Your task to perform on an android device: install app "Upside-Cash back on gas & food" Image 0: 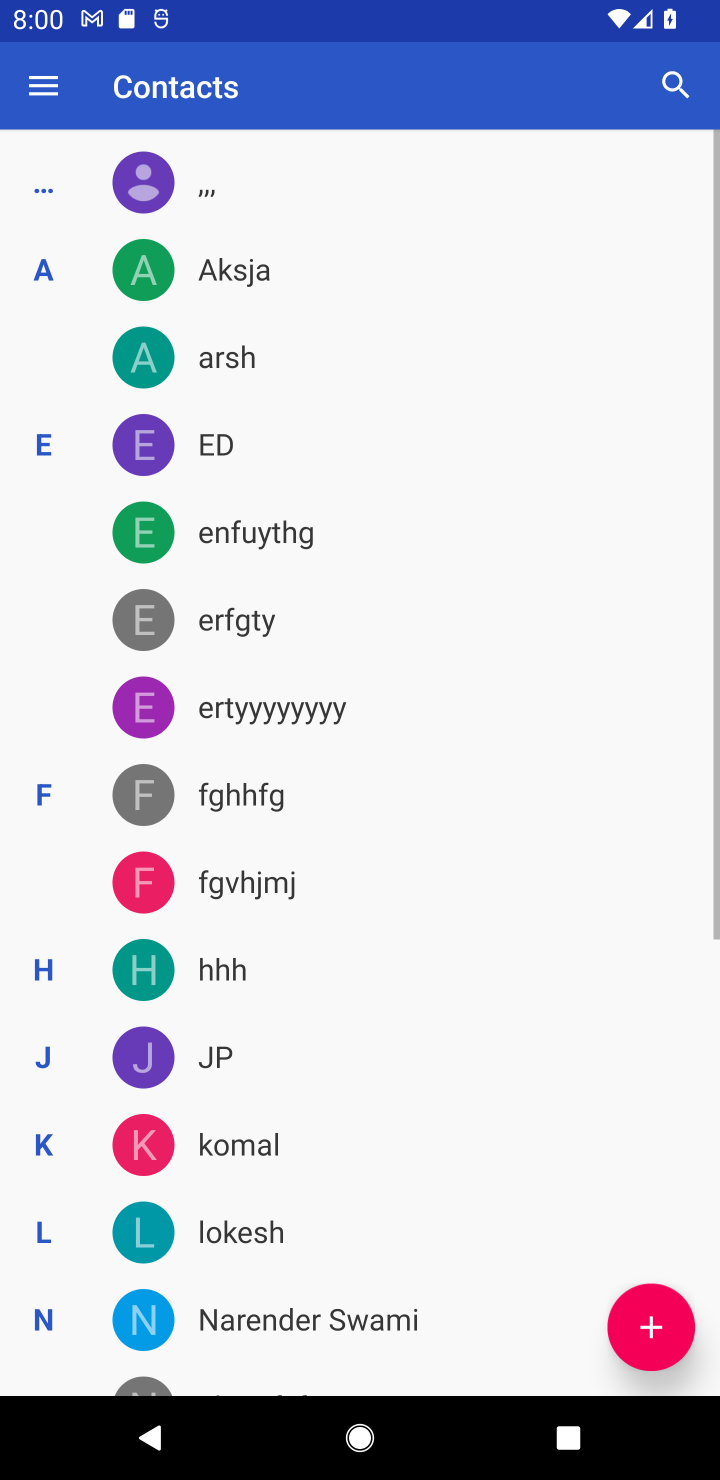
Step 0: press home button
Your task to perform on an android device: install app "Upside-Cash back on gas & food" Image 1: 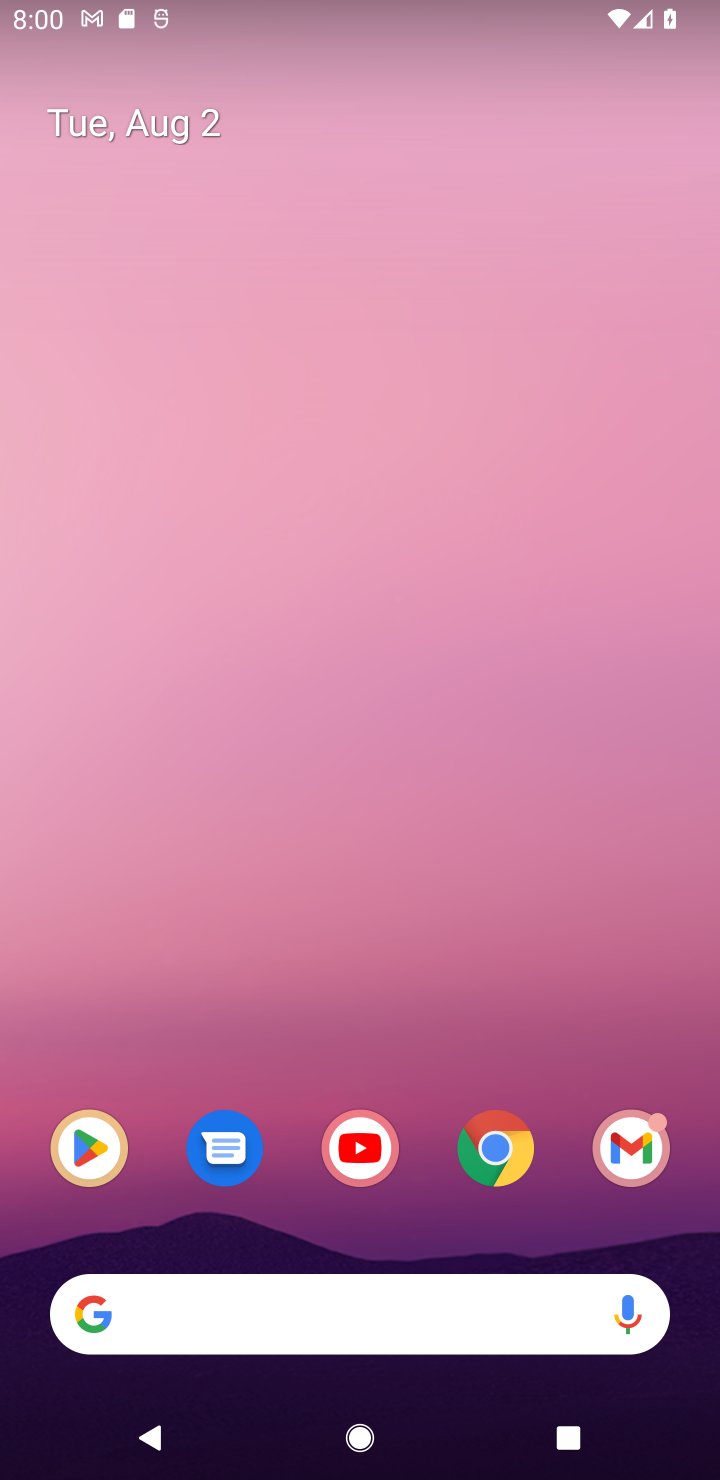
Step 1: drag from (572, 1110) to (324, 162)
Your task to perform on an android device: install app "Upside-Cash back on gas & food" Image 2: 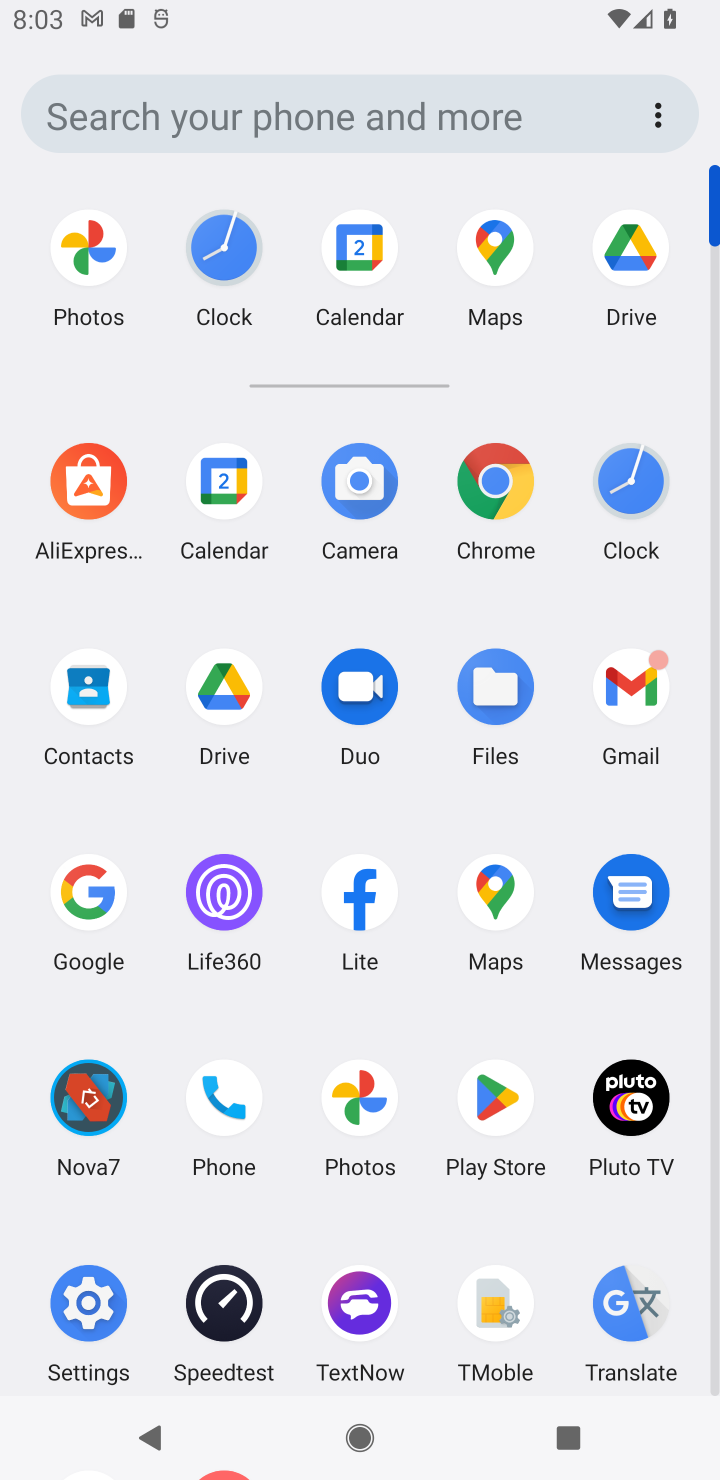
Step 2: click (497, 1088)
Your task to perform on an android device: install app "Upside-Cash back on gas & food" Image 3: 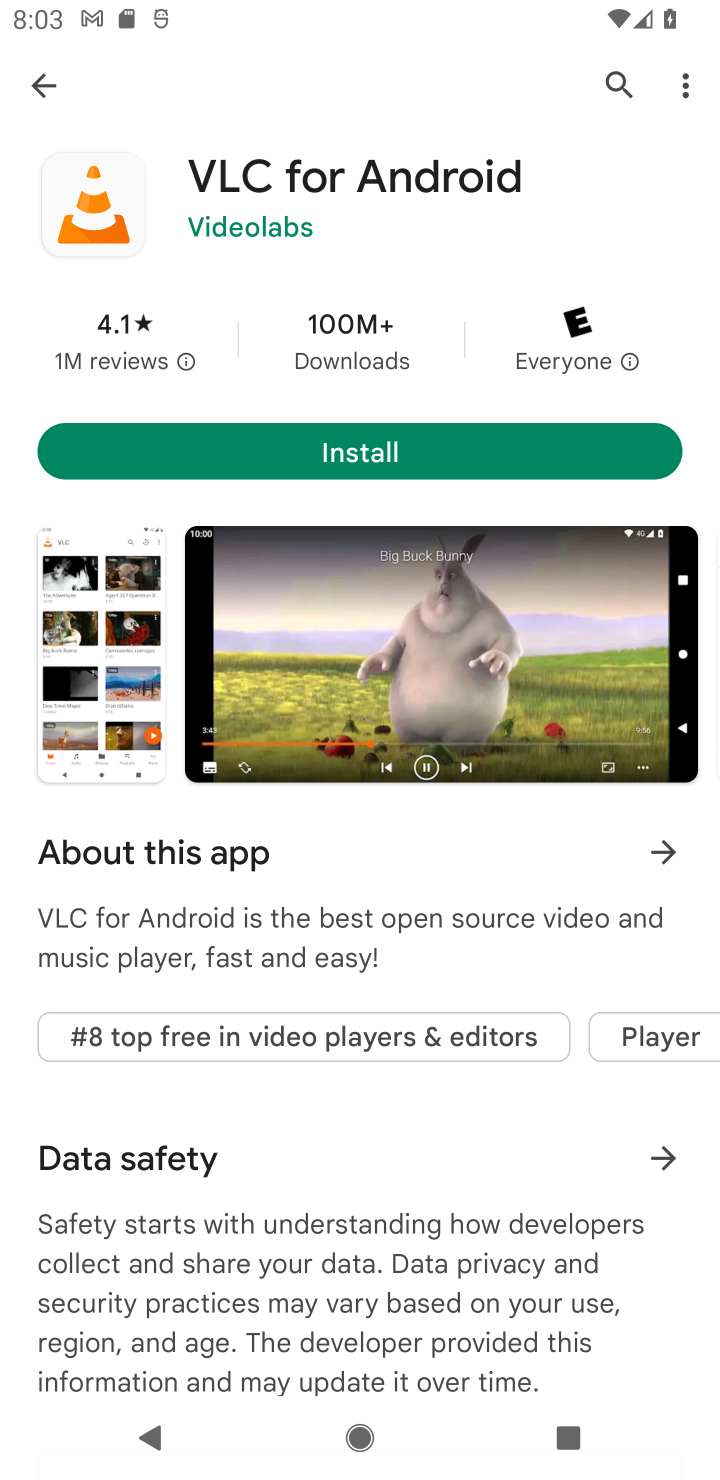
Step 3: press back button
Your task to perform on an android device: install app "Upside-Cash back on gas & food" Image 4: 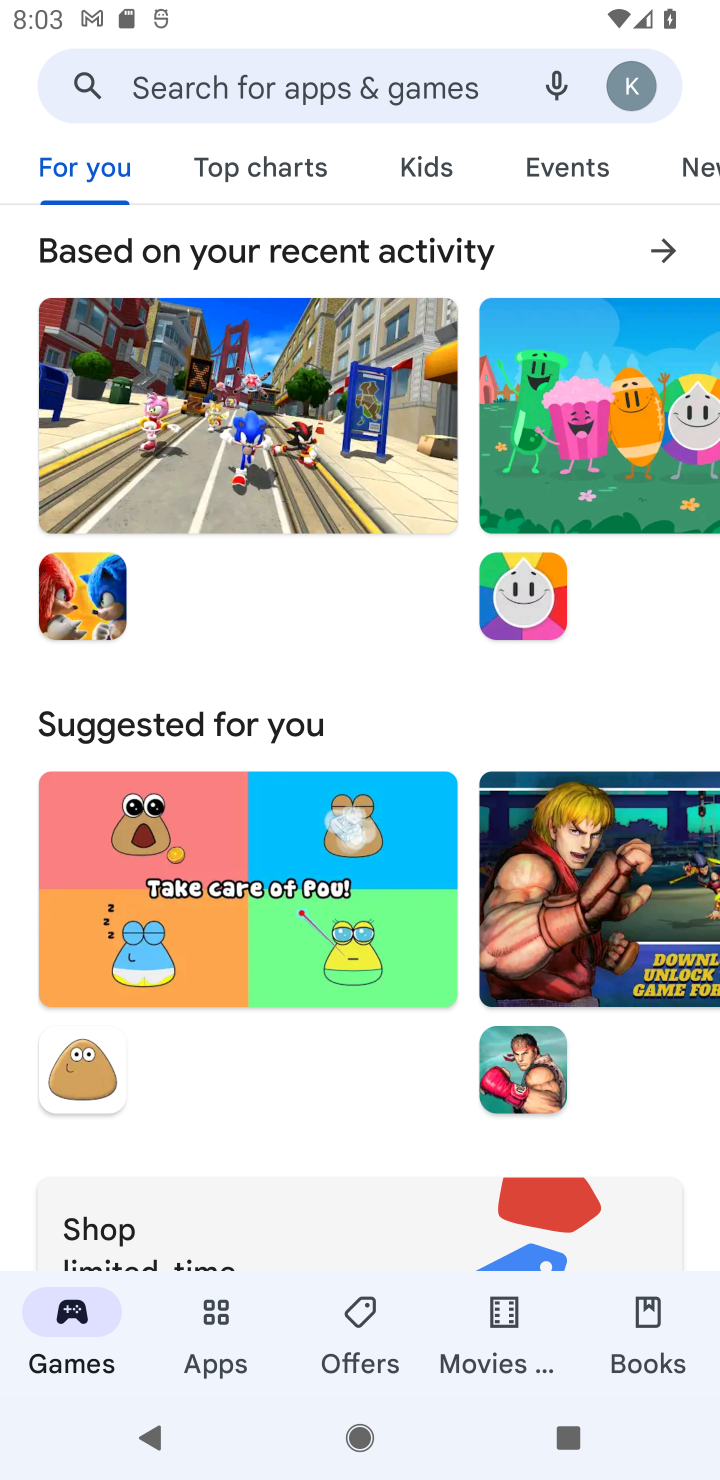
Step 4: click (290, 94)
Your task to perform on an android device: install app "Upside-Cash back on gas & food" Image 5: 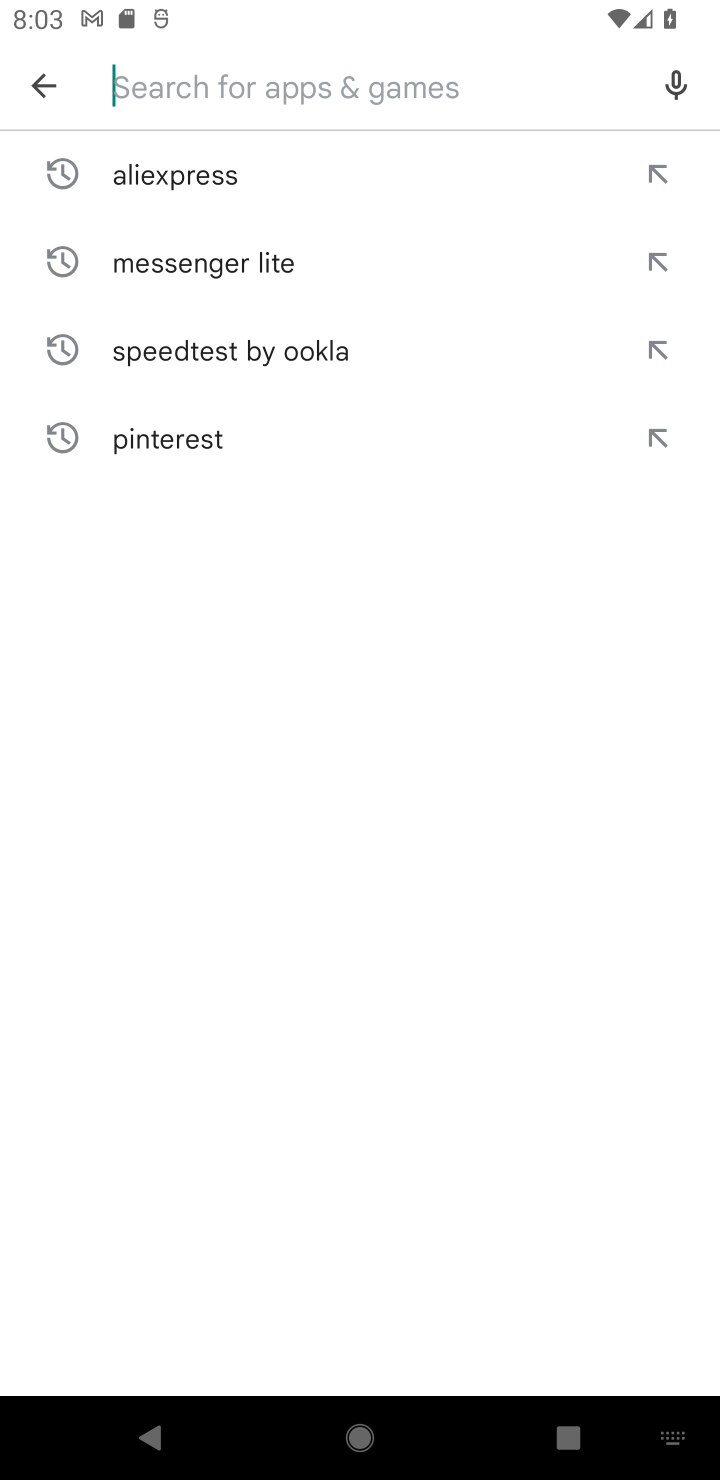
Step 5: type "Upside-Cash back on gas & food"
Your task to perform on an android device: install app "Upside-Cash back on gas & food" Image 6: 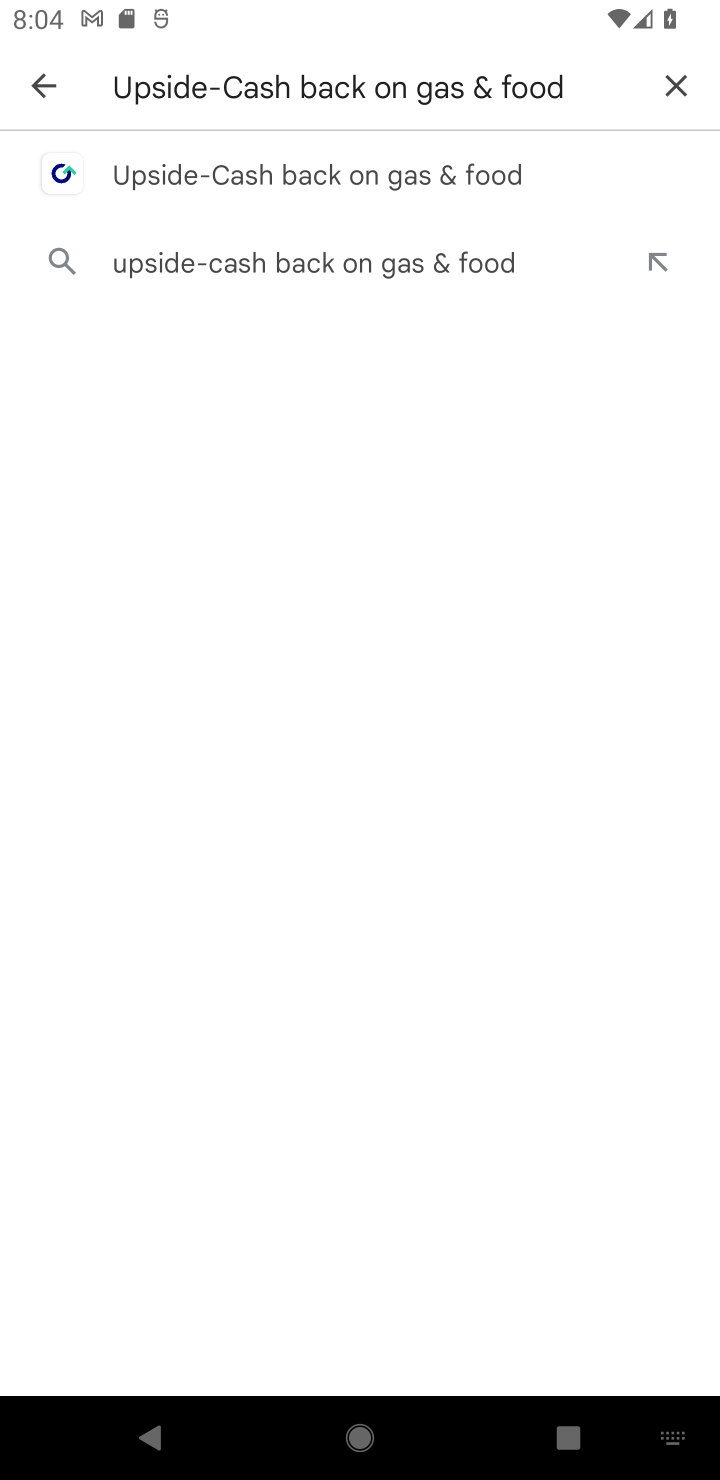
Step 6: click (292, 193)
Your task to perform on an android device: install app "Upside-Cash back on gas & food" Image 7: 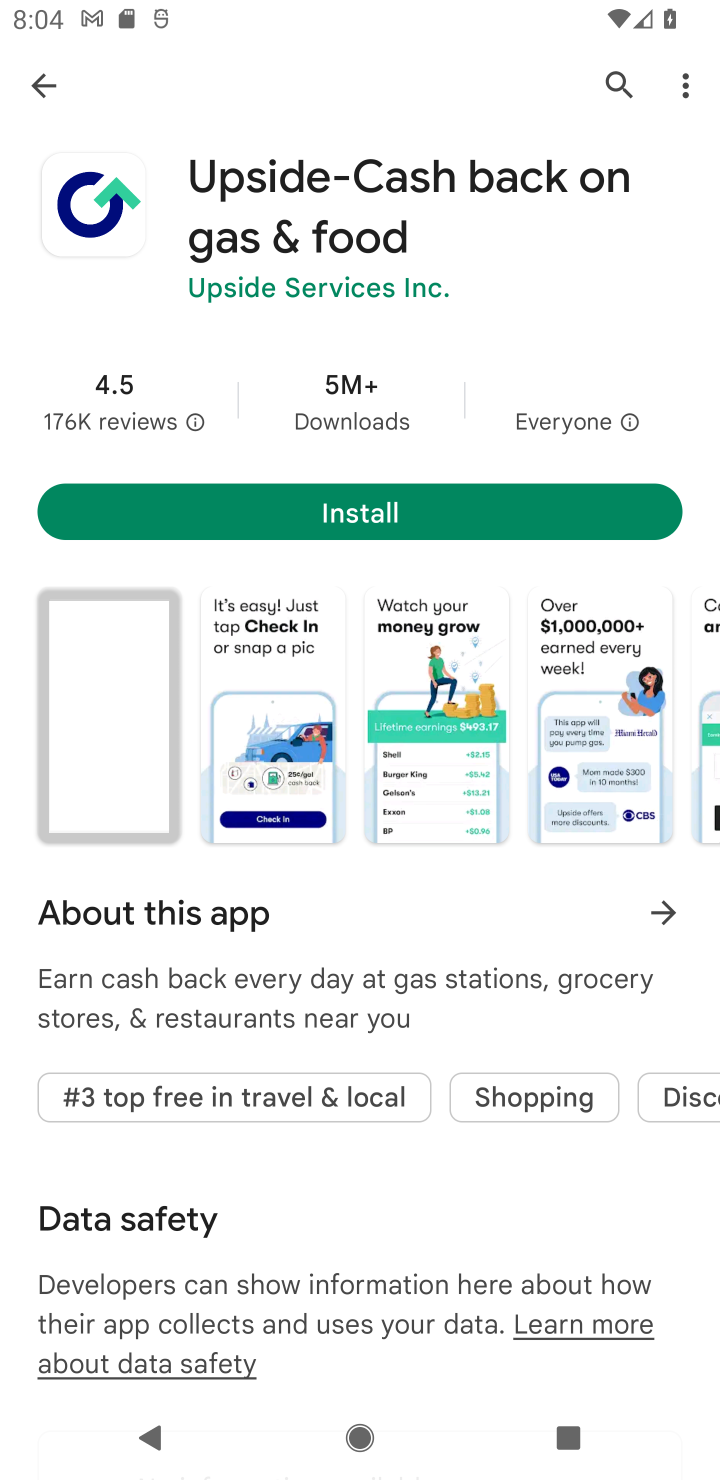
Step 7: click (290, 527)
Your task to perform on an android device: install app "Upside-Cash back on gas & food" Image 8: 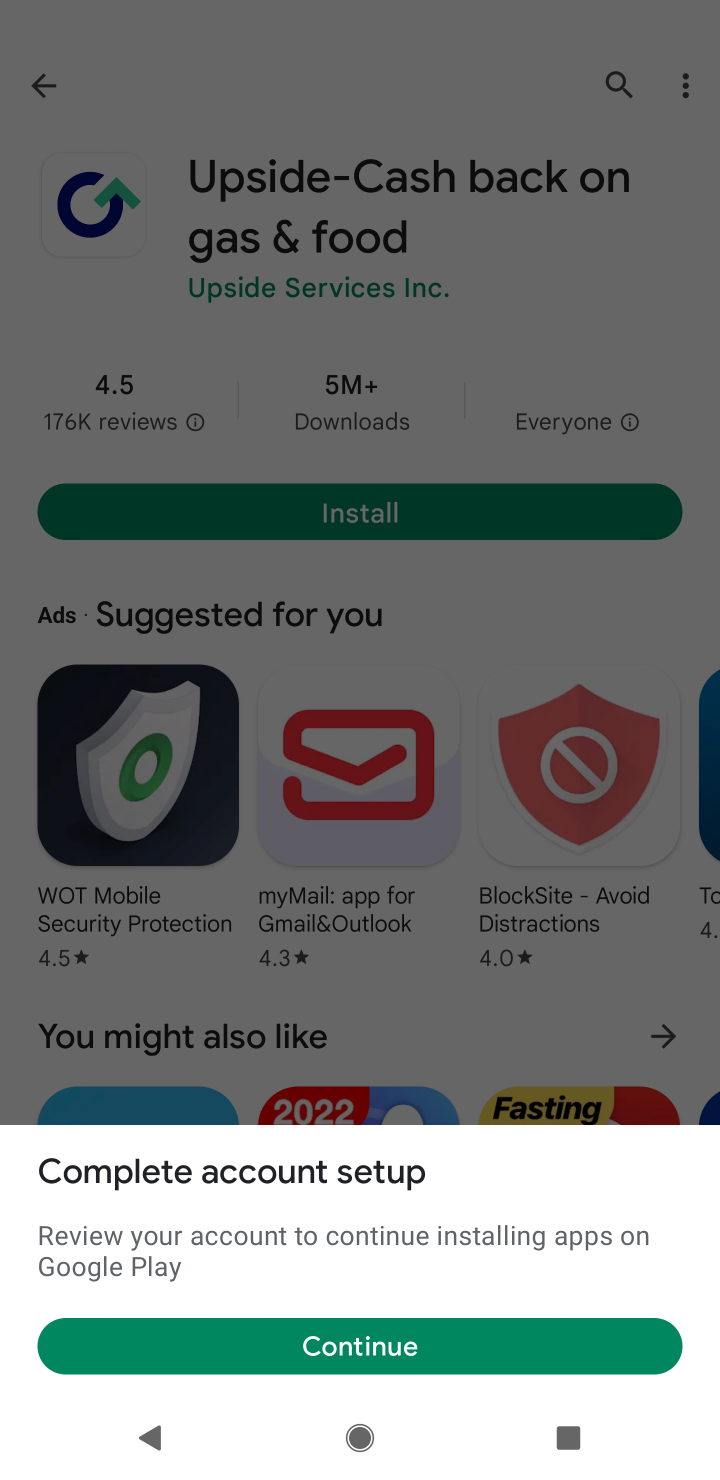
Step 8: click (329, 1347)
Your task to perform on an android device: install app "Upside-Cash back on gas & food" Image 9: 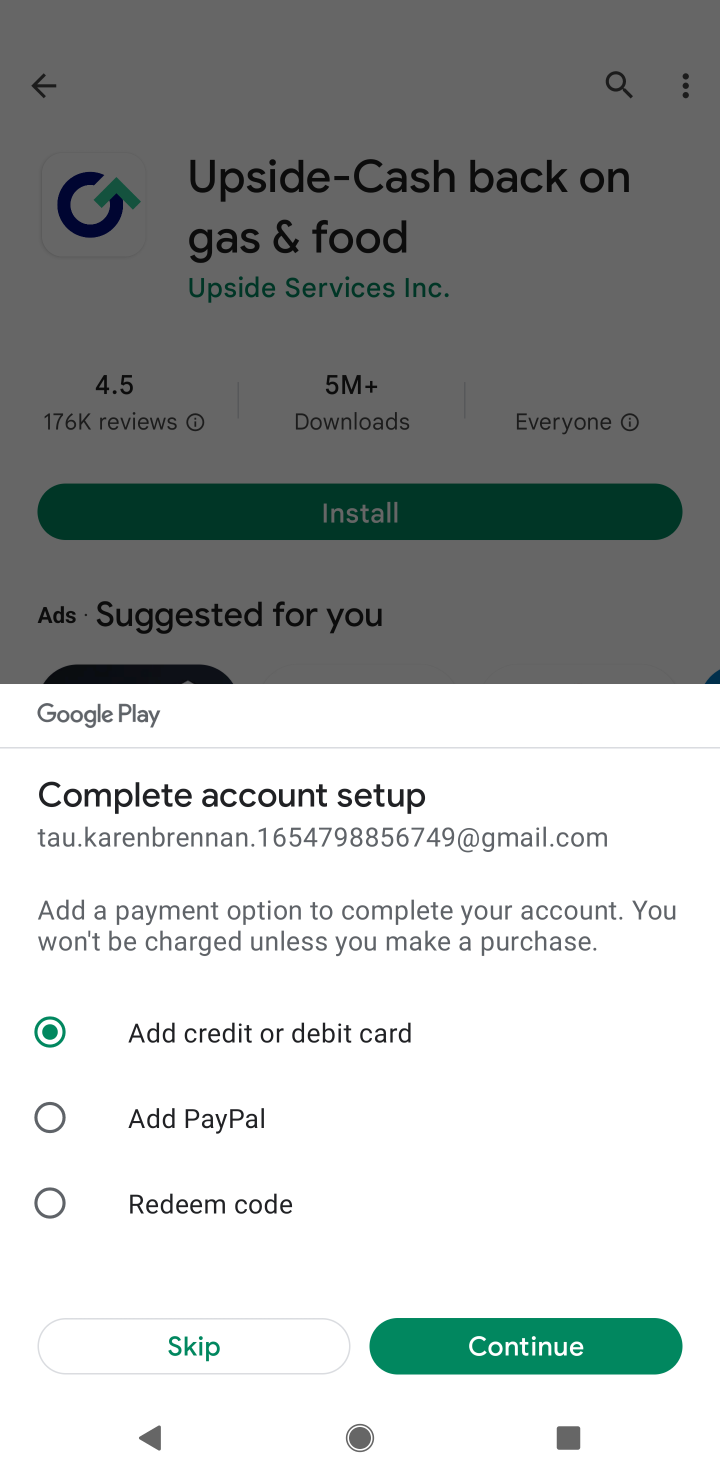
Step 9: click (198, 1347)
Your task to perform on an android device: install app "Upside-Cash back on gas & food" Image 10: 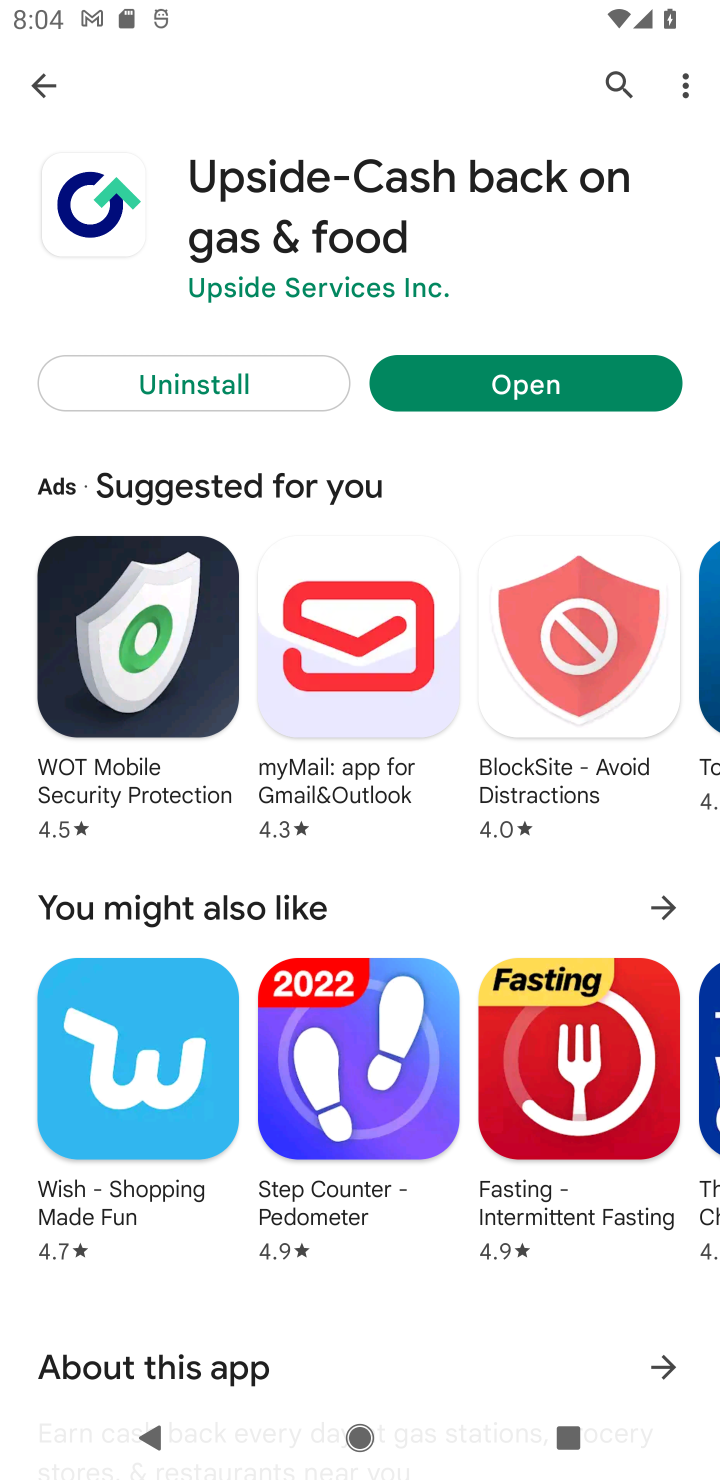
Step 10: task complete